Your task to perform on an android device: What is the news today? Image 0: 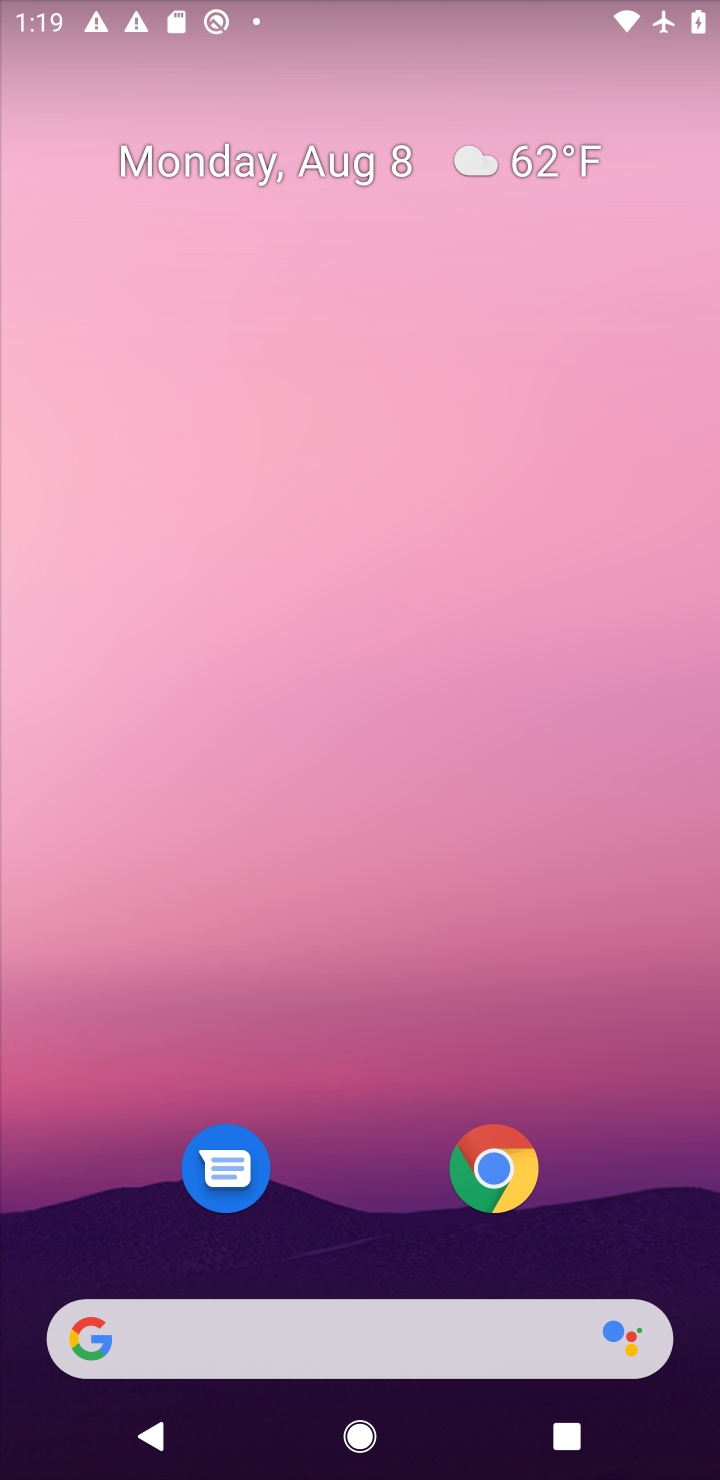
Step 0: drag from (365, 1265) to (415, 5)
Your task to perform on an android device: What is the news today? Image 1: 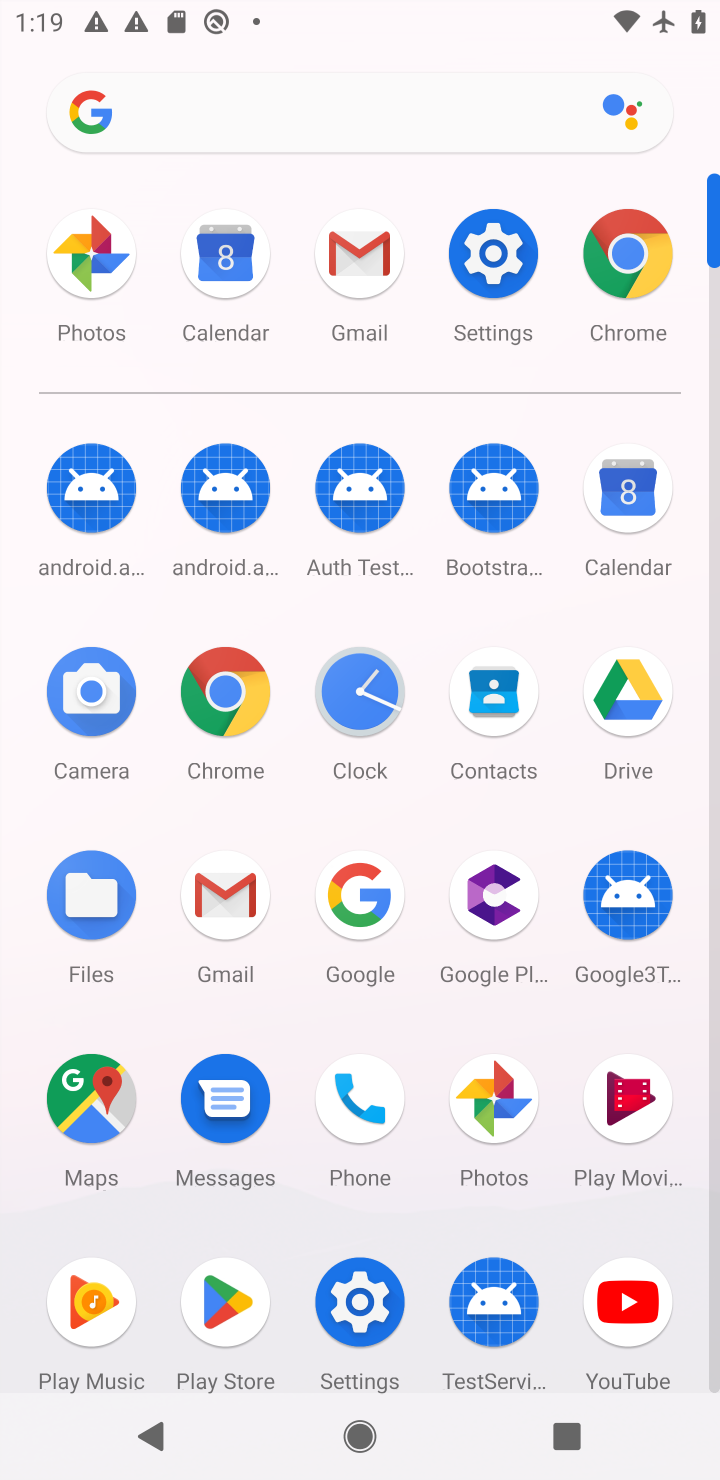
Step 1: click (327, 118)
Your task to perform on an android device: What is the news today? Image 2: 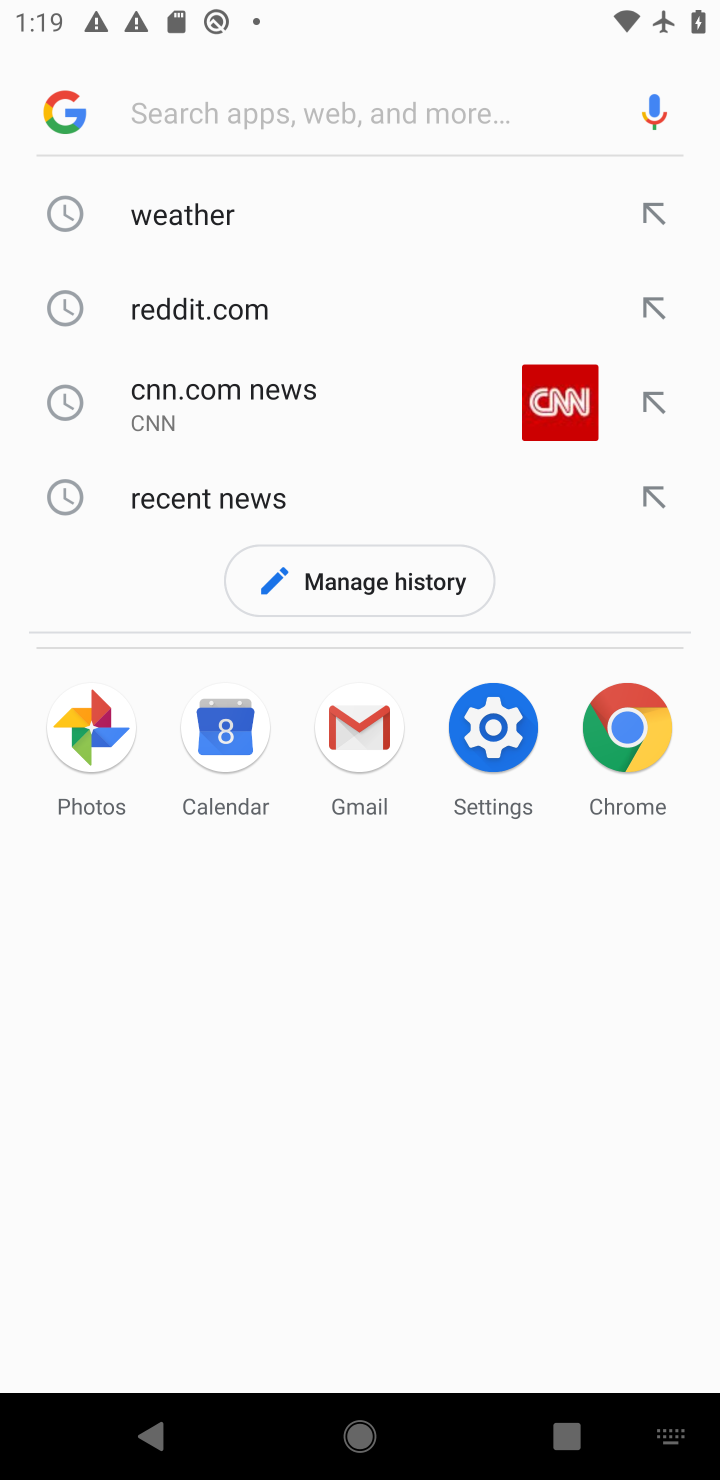
Step 2: click (157, 517)
Your task to perform on an android device: What is the news today? Image 3: 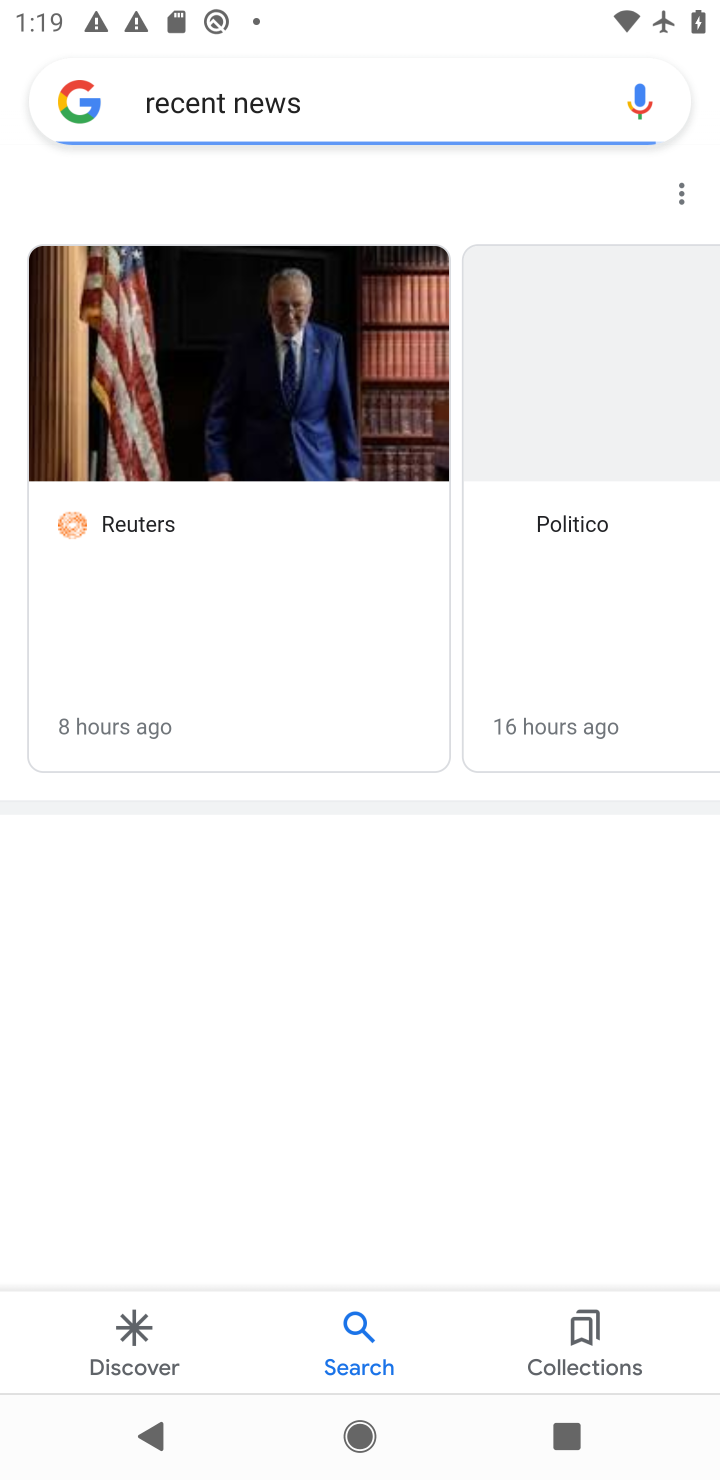
Step 3: task complete